Your task to perform on an android device: Open CNN.com Image 0: 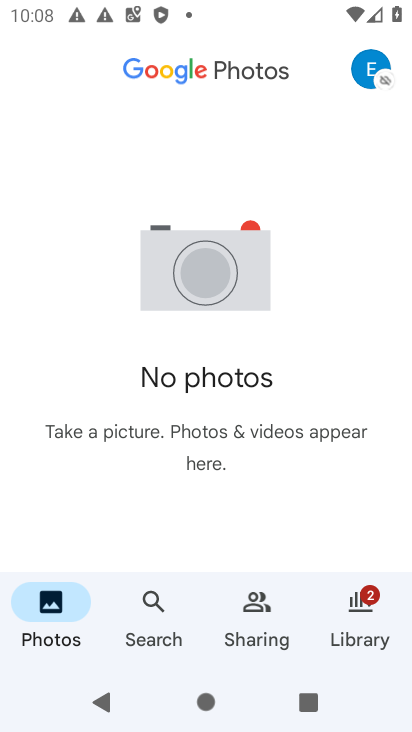
Step 0: press home button
Your task to perform on an android device: Open CNN.com Image 1: 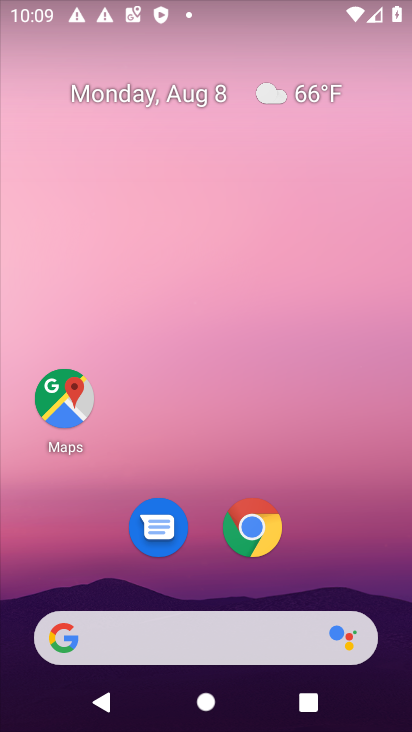
Step 1: click (253, 525)
Your task to perform on an android device: Open CNN.com Image 2: 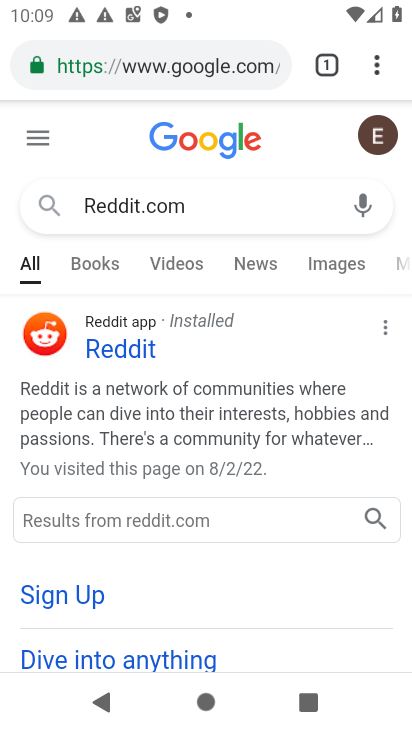
Step 2: click (262, 57)
Your task to perform on an android device: Open CNN.com Image 3: 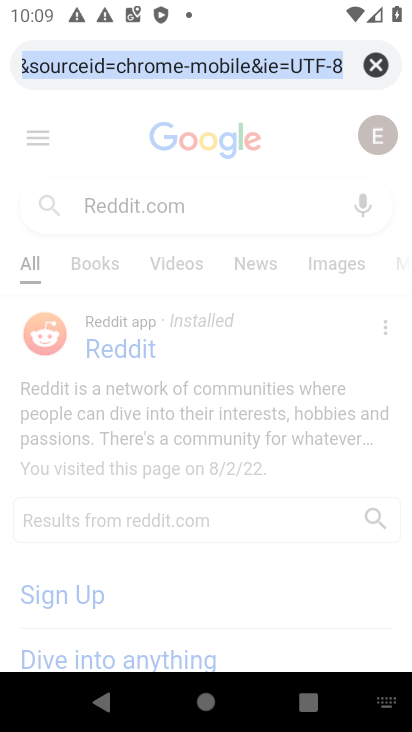
Step 3: click (373, 58)
Your task to perform on an android device: Open CNN.com Image 4: 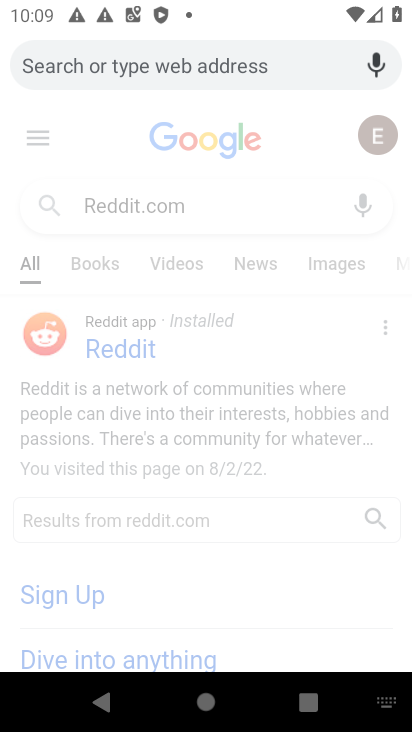
Step 4: type "CNN.com"
Your task to perform on an android device: Open CNN.com Image 5: 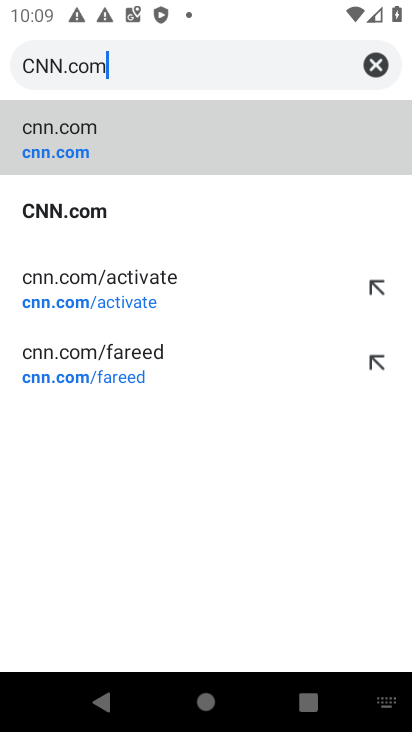
Step 5: click (90, 209)
Your task to perform on an android device: Open CNN.com Image 6: 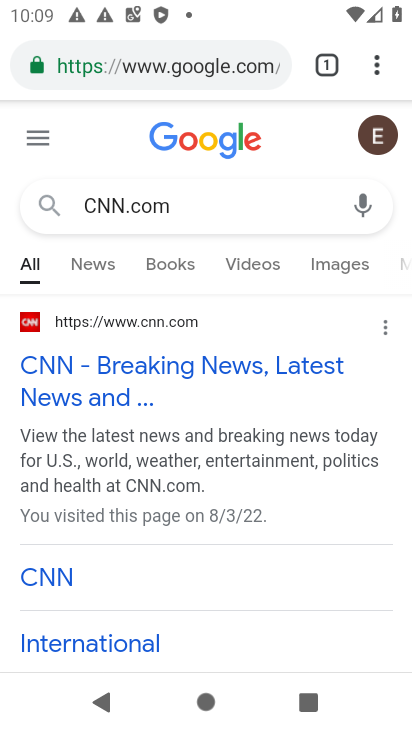
Step 6: task complete